Your task to perform on an android device: manage bookmarks in the chrome app Image 0: 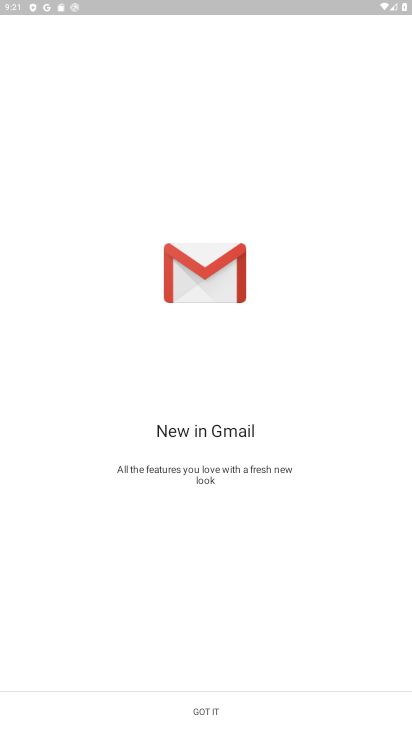
Step 0: press home button
Your task to perform on an android device: manage bookmarks in the chrome app Image 1: 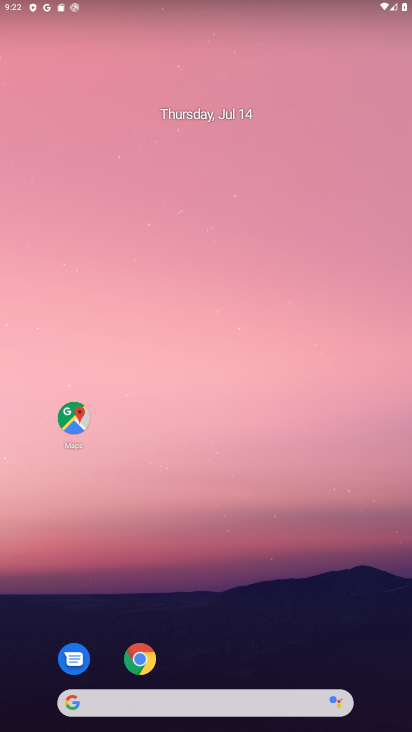
Step 1: click (142, 655)
Your task to perform on an android device: manage bookmarks in the chrome app Image 2: 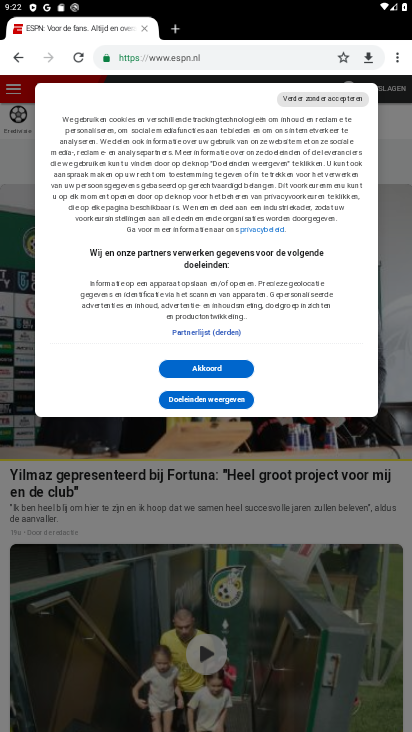
Step 2: click (406, 257)
Your task to perform on an android device: manage bookmarks in the chrome app Image 3: 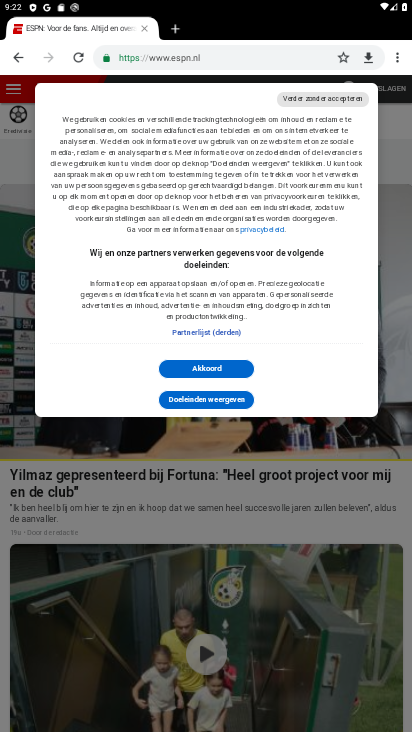
Step 3: click (398, 59)
Your task to perform on an android device: manage bookmarks in the chrome app Image 4: 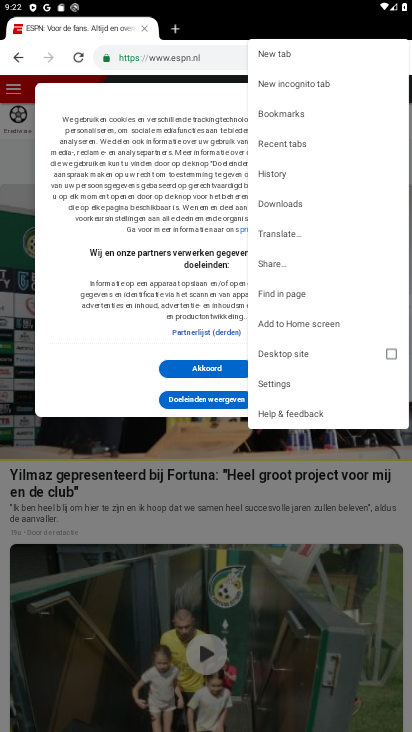
Step 4: click (294, 115)
Your task to perform on an android device: manage bookmarks in the chrome app Image 5: 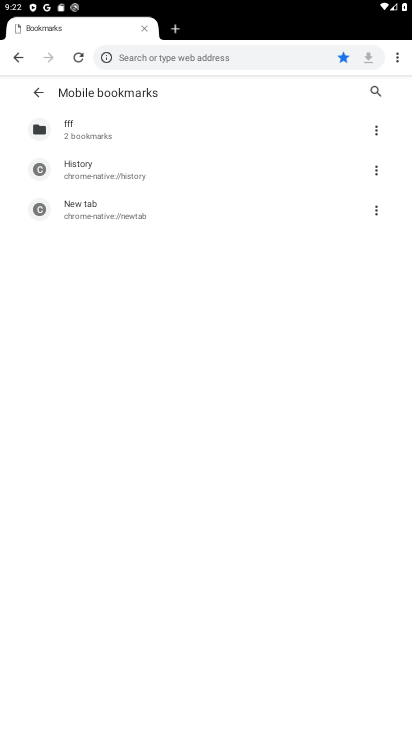
Step 5: click (161, 207)
Your task to perform on an android device: manage bookmarks in the chrome app Image 6: 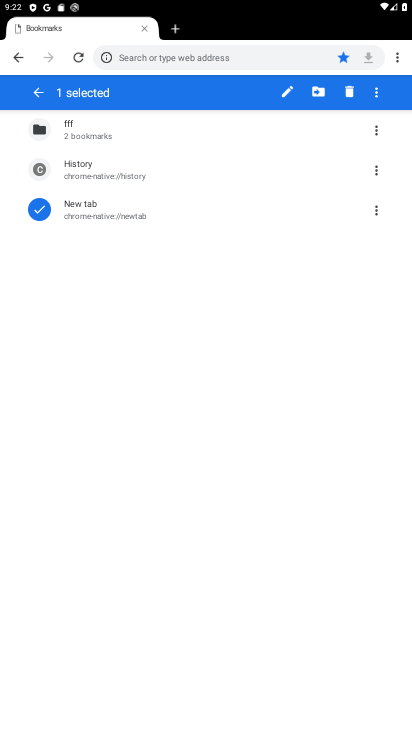
Step 6: click (125, 175)
Your task to perform on an android device: manage bookmarks in the chrome app Image 7: 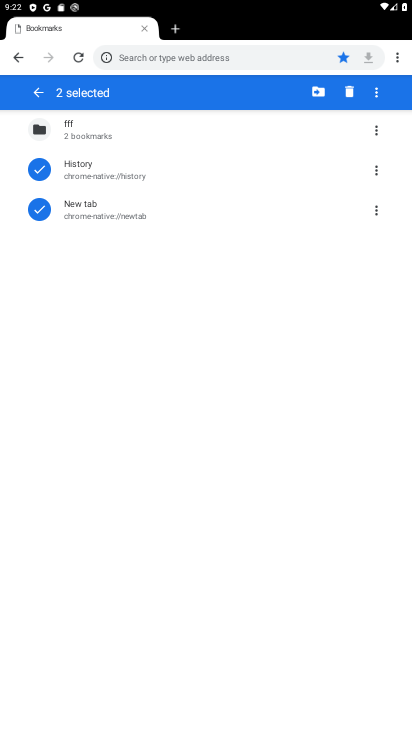
Step 7: click (326, 95)
Your task to perform on an android device: manage bookmarks in the chrome app Image 8: 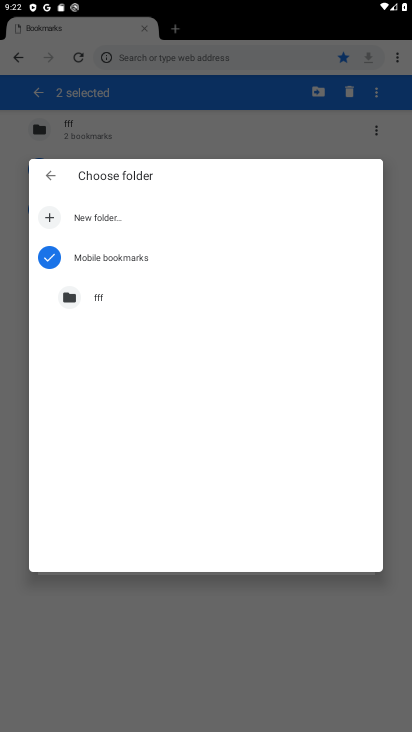
Step 8: click (79, 296)
Your task to perform on an android device: manage bookmarks in the chrome app Image 9: 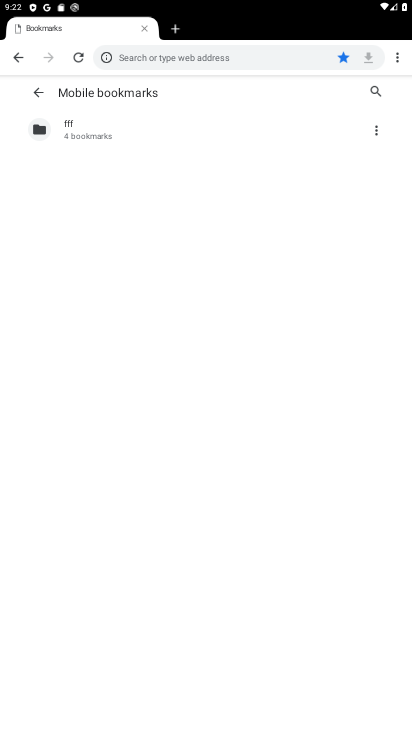
Step 9: task complete